Your task to perform on an android device: Add usb-b to the cart on costco, then select checkout. Image 0: 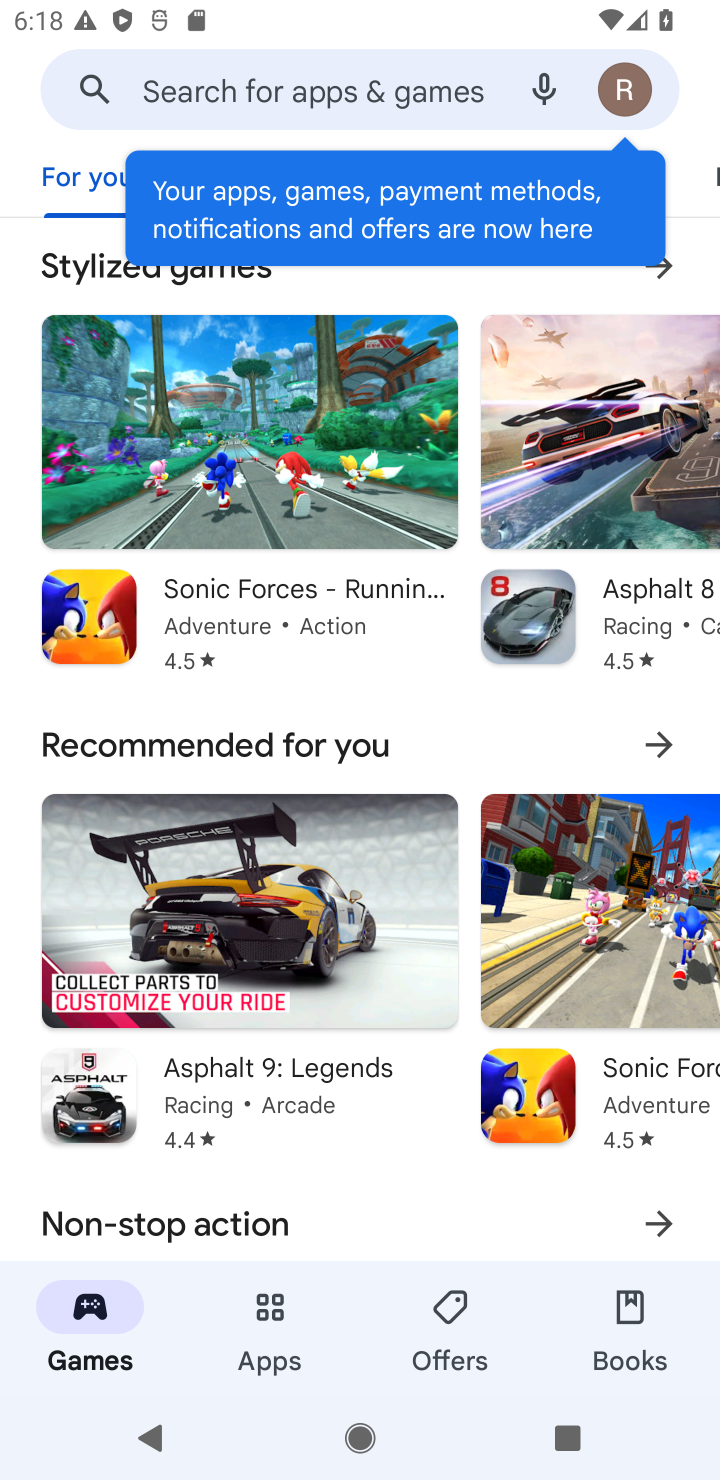
Step 0: press home button
Your task to perform on an android device: Add usb-b to the cart on costco, then select checkout. Image 1: 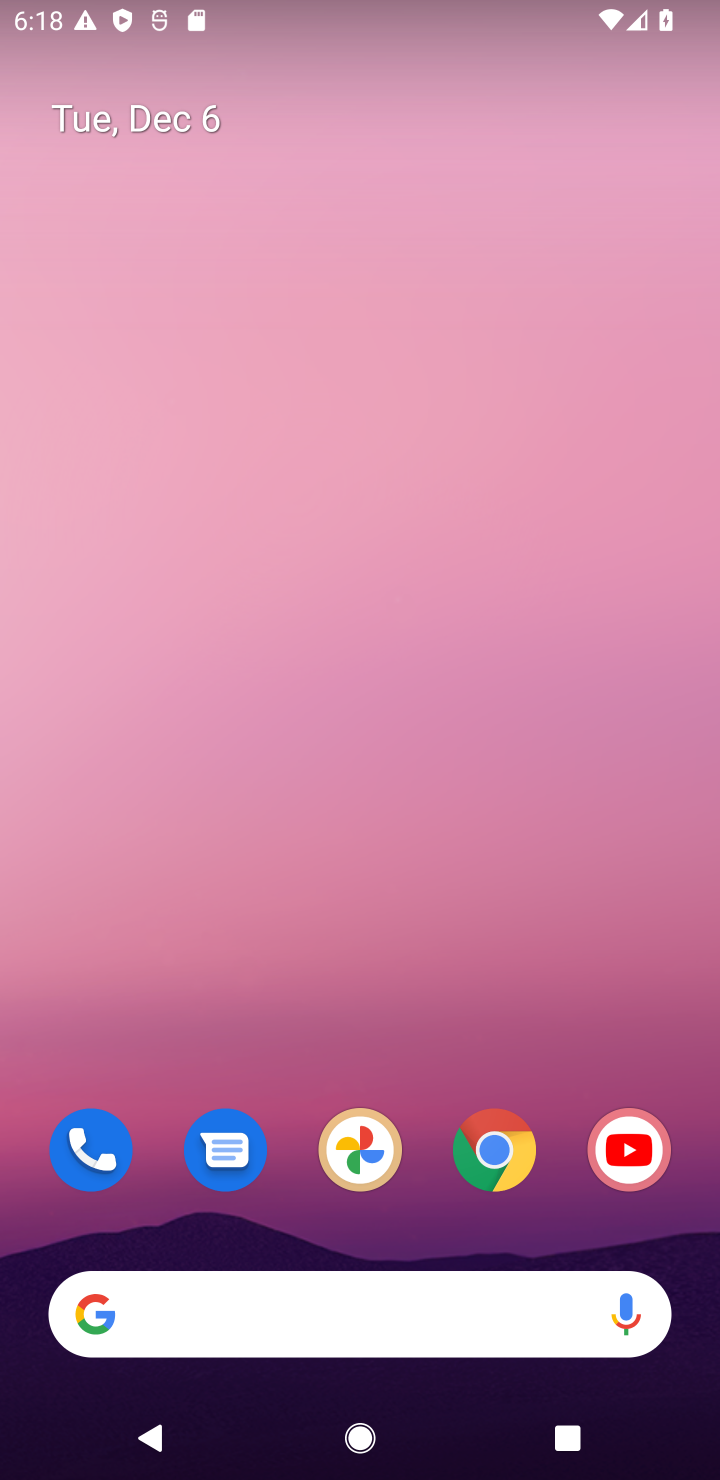
Step 1: click (488, 1162)
Your task to perform on an android device: Add usb-b to the cart on costco, then select checkout. Image 2: 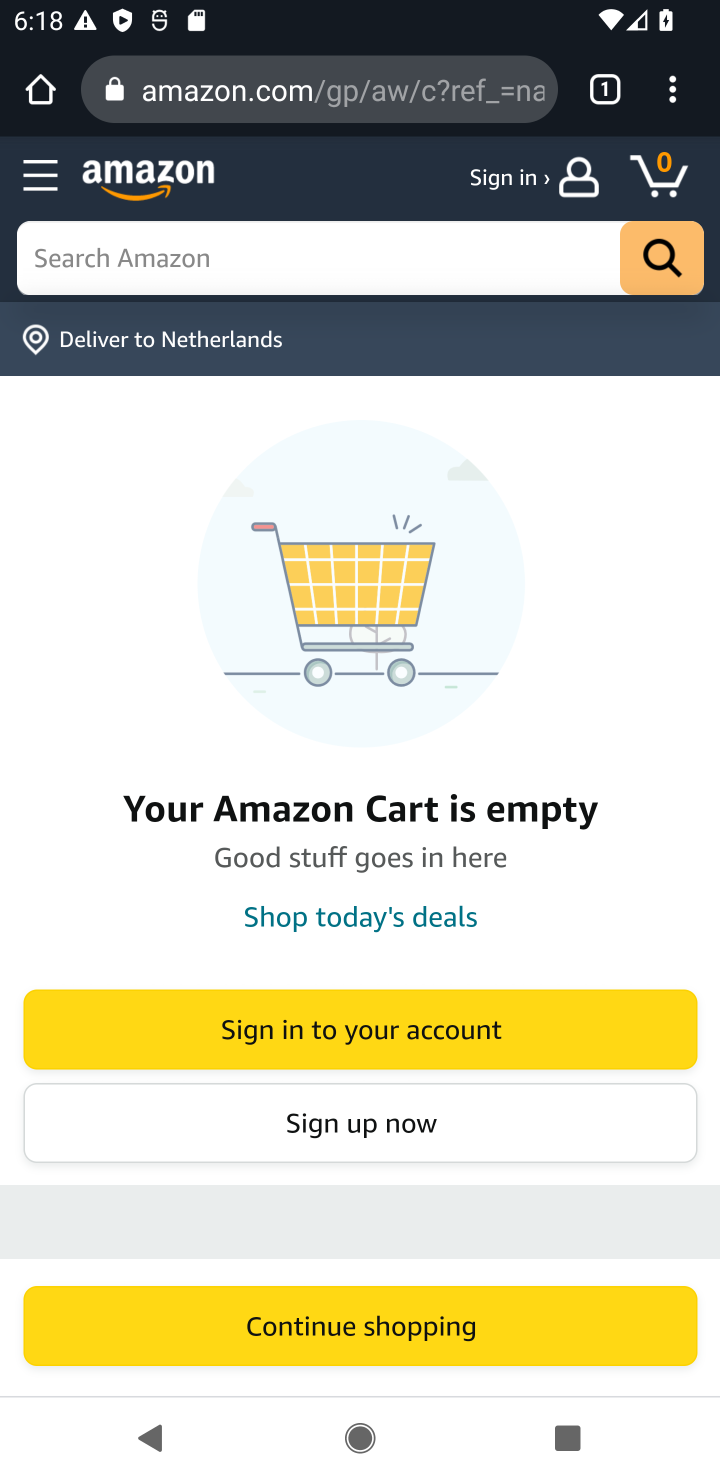
Step 2: click (333, 89)
Your task to perform on an android device: Add usb-b to the cart on costco, then select checkout. Image 3: 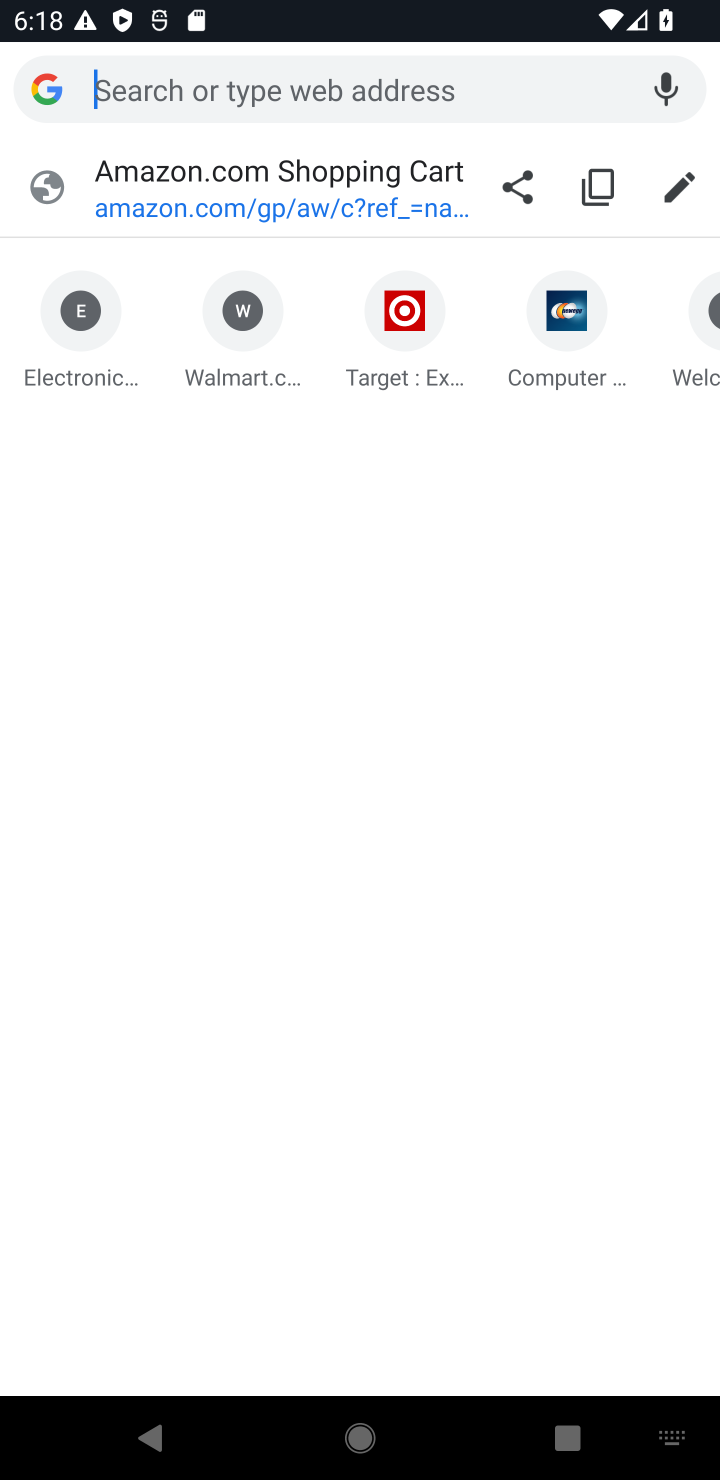
Step 3: type "costco.com"
Your task to perform on an android device: Add usb-b to the cart on costco, then select checkout. Image 4: 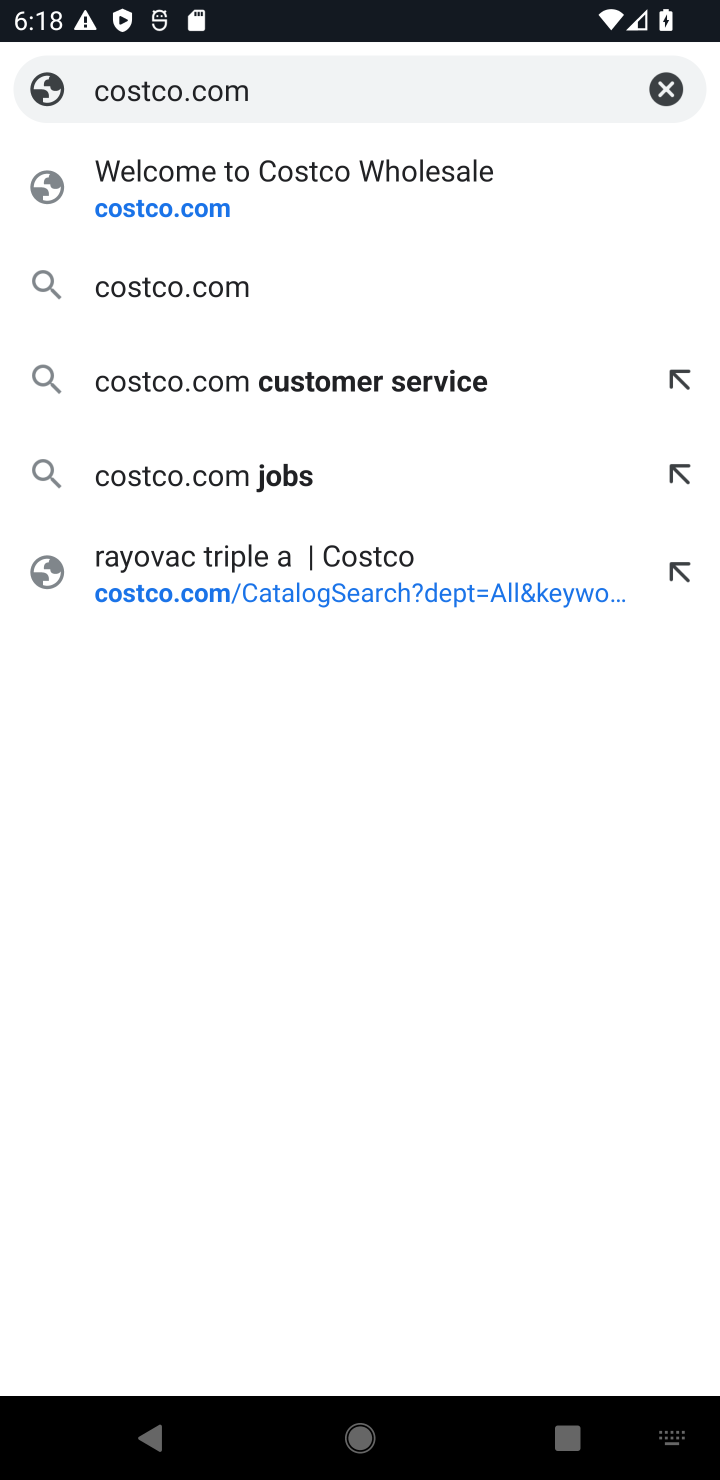
Step 4: click (171, 211)
Your task to perform on an android device: Add usb-b to the cart on costco, then select checkout. Image 5: 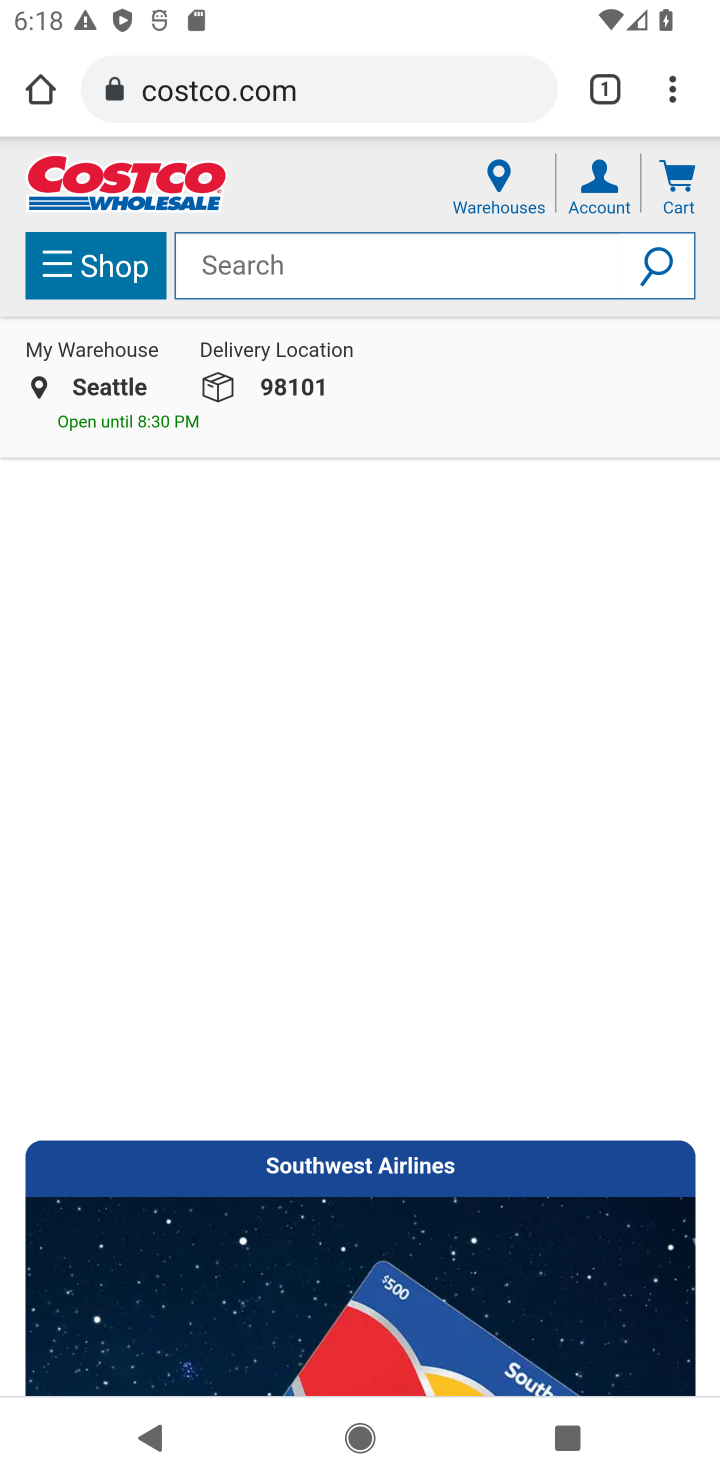
Step 5: click (239, 273)
Your task to perform on an android device: Add usb-b to the cart on costco, then select checkout. Image 6: 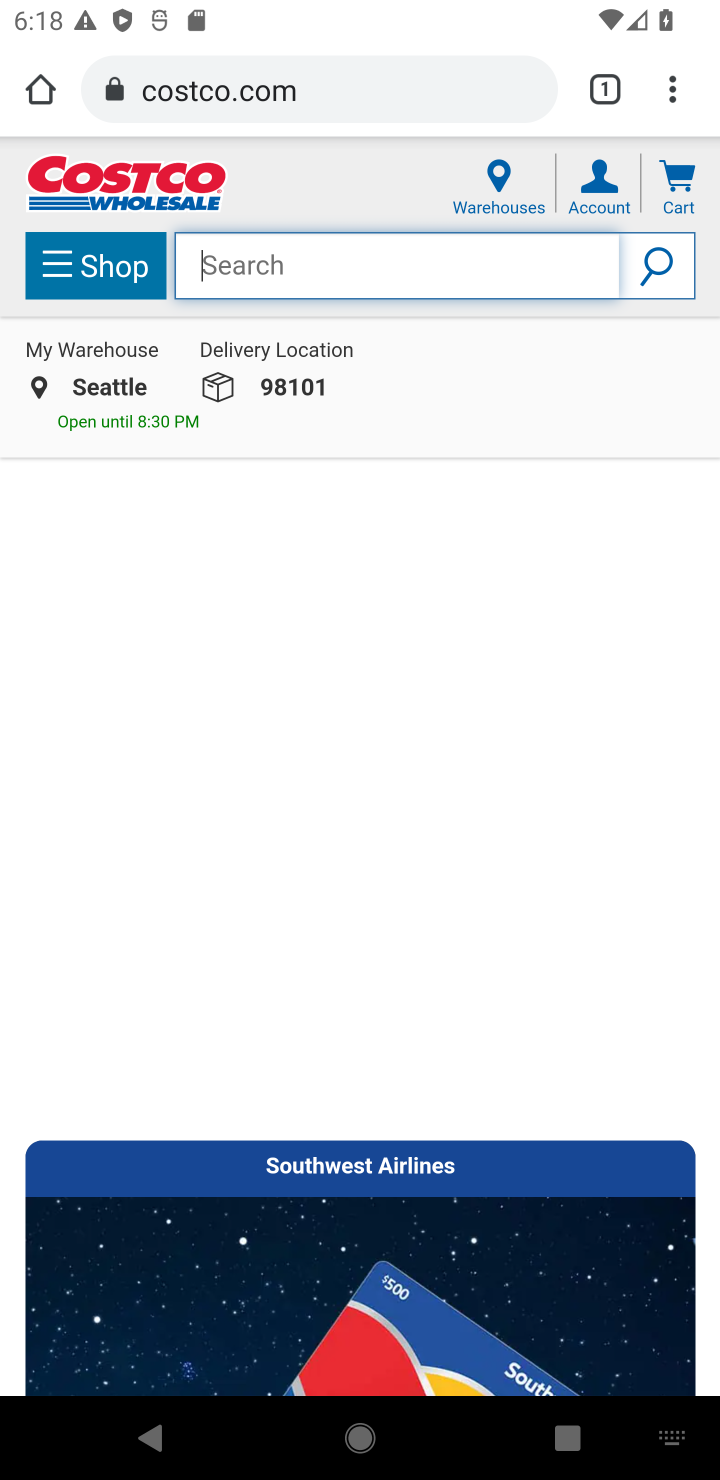
Step 6: type "usb-b"
Your task to perform on an android device: Add usb-b to the cart on costco, then select checkout. Image 7: 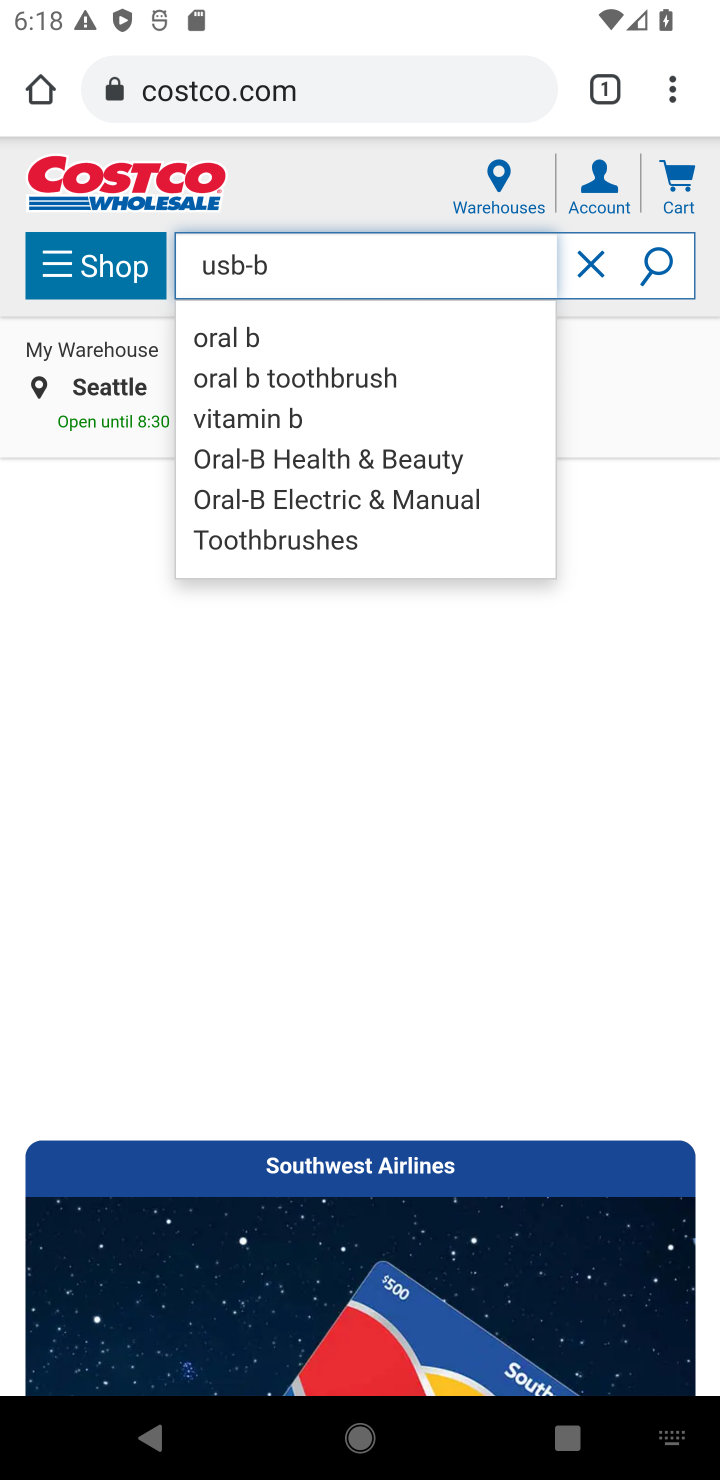
Step 7: click (656, 275)
Your task to perform on an android device: Add usb-b to the cart on costco, then select checkout. Image 8: 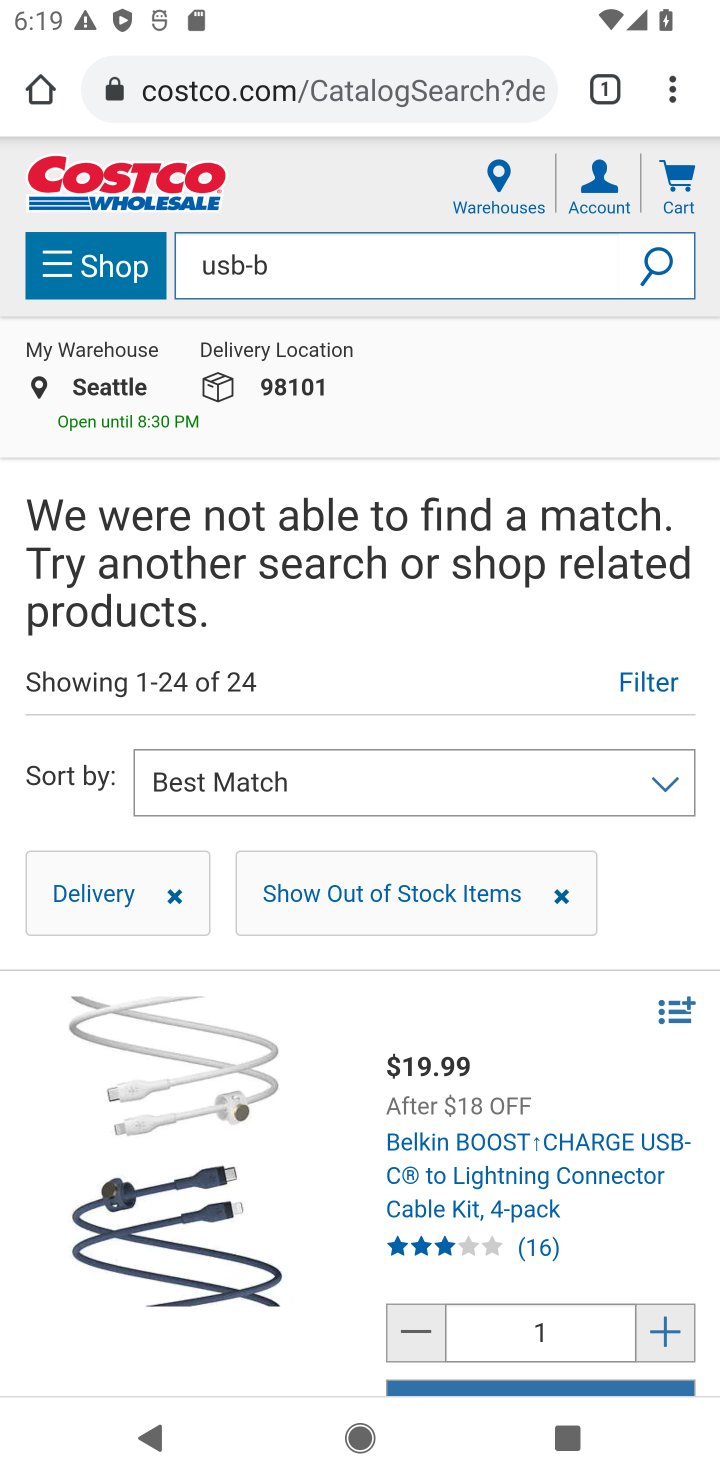
Step 8: task complete